Your task to perform on an android device: Open sound settings Image 0: 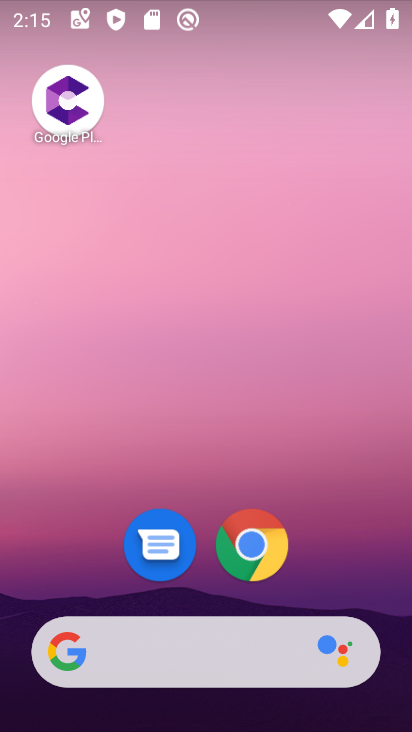
Step 0: drag from (362, 564) to (339, 39)
Your task to perform on an android device: Open sound settings Image 1: 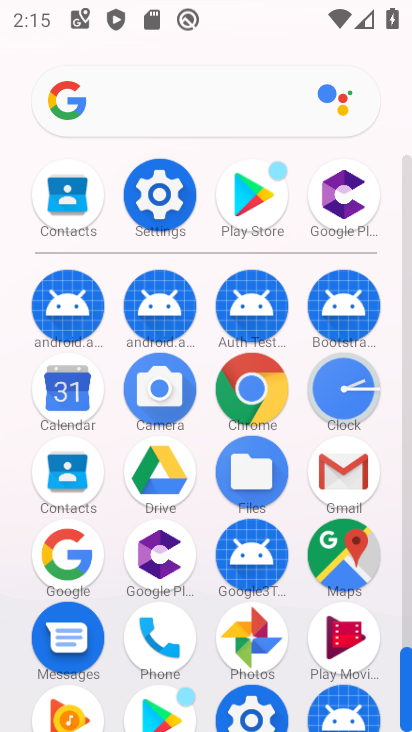
Step 1: drag from (295, 611) to (306, 267)
Your task to perform on an android device: Open sound settings Image 2: 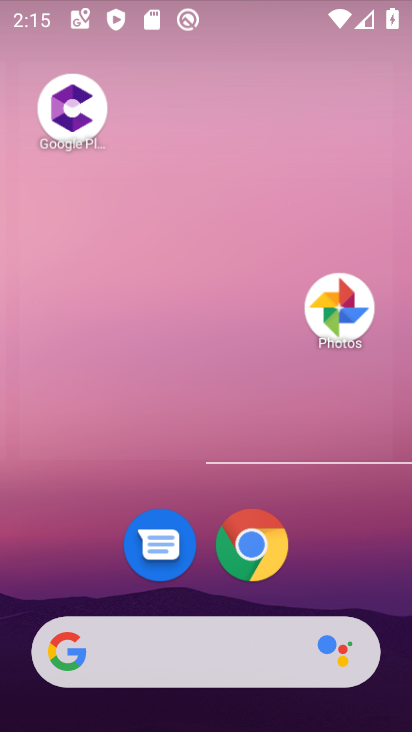
Step 2: drag from (343, 522) to (310, 3)
Your task to perform on an android device: Open sound settings Image 3: 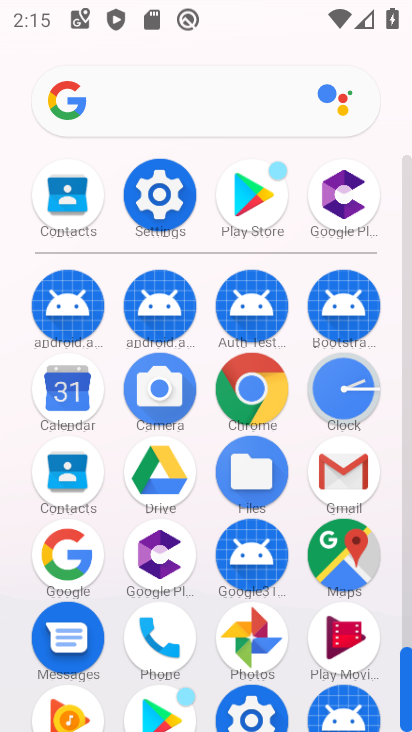
Step 3: click (170, 199)
Your task to perform on an android device: Open sound settings Image 4: 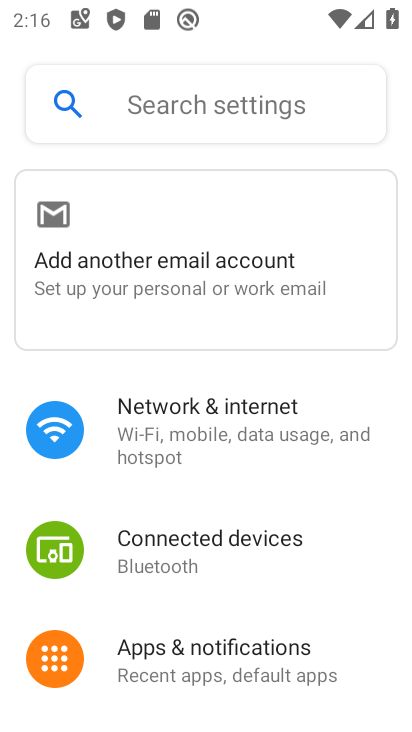
Step 4: drag from (204, 593) to (190, 167)
Your task to perform on an android device: Open sound settings Image 5: 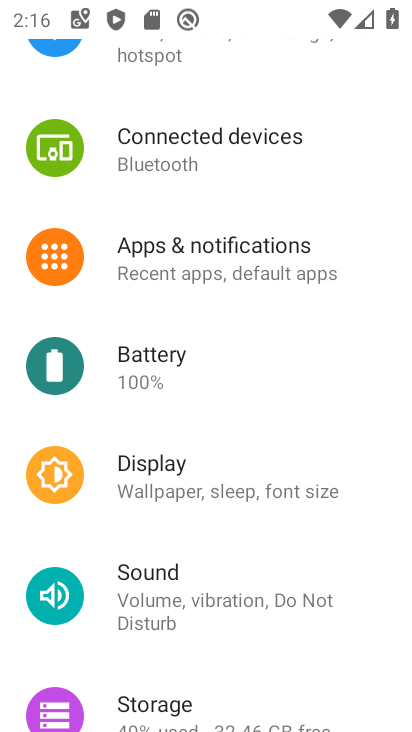
Step 5: click (174, 581)
Your task to perform on an android device: Open sound settings Image 6: 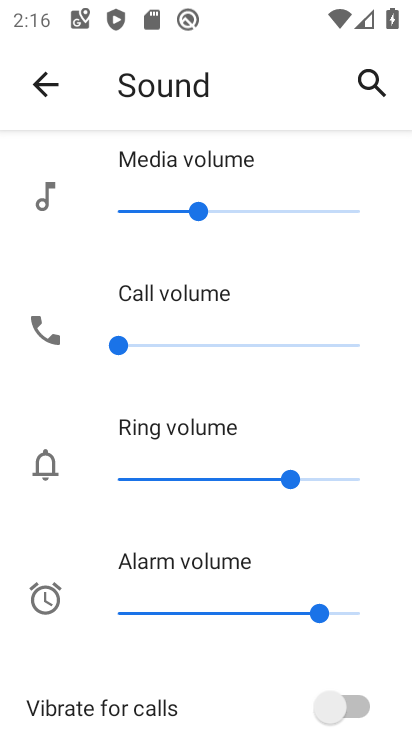
Step 6: task complete